Your task to perform on an android device: turn on wifi Image 0: 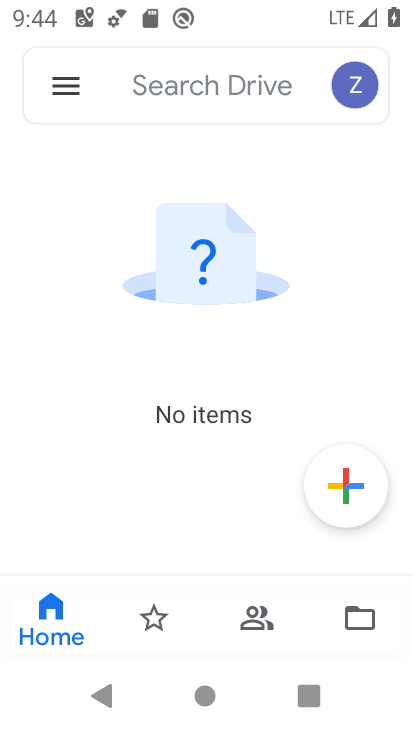
Step 0: press home button
Your task to perform on an android device: turn on wifi Image 1: 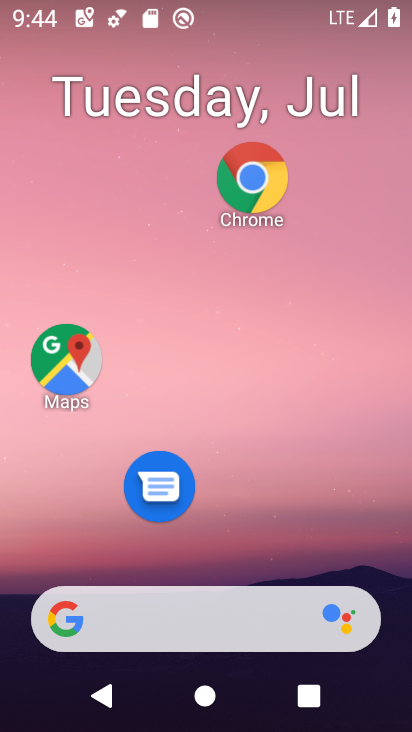
Step 1: drag from (215, 567) to (249, 61)
Your task to perform on an android device: turn on wifi Image 2: 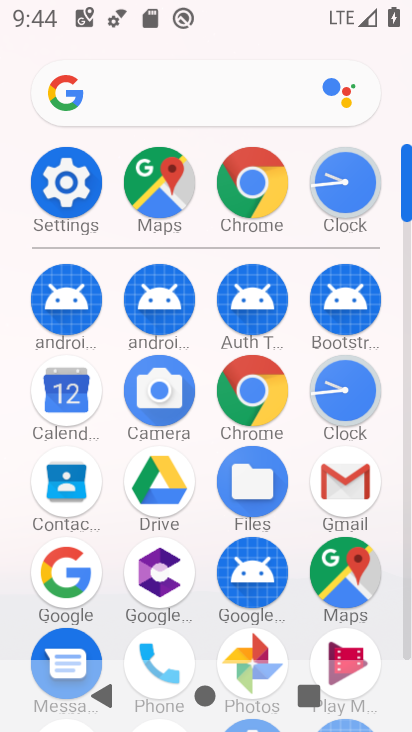
Step 2: drag from (229, 571) to (272, 243)
Your task to perform on an android device: turn on wifi Image 3: 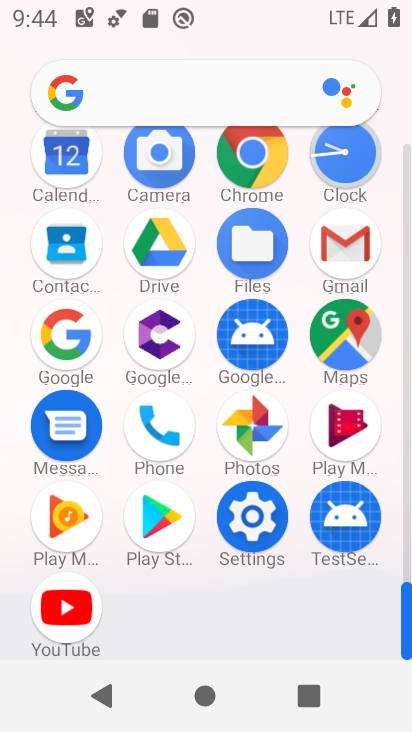
Step 3: click (254, 534)
Your task to perform on an android device: turn on wifi Image 4: 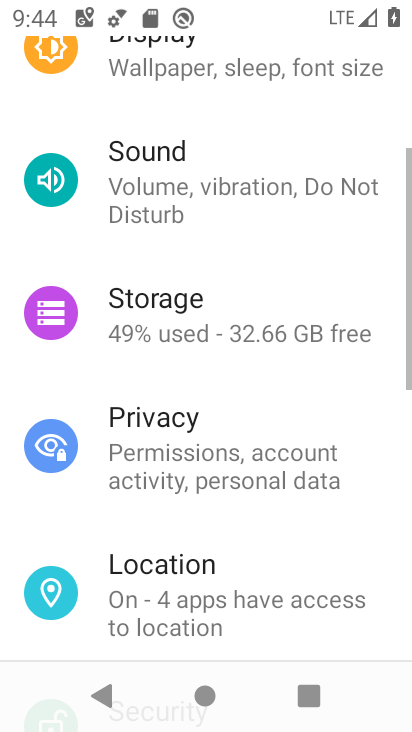
Step 4: drag from (247, 260) to (239, 608)
Your task to perform on an android device: turn on wifi Image 5: 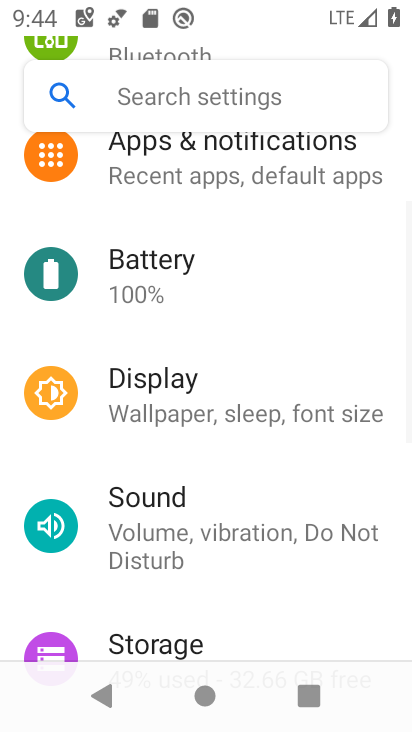
Step 5: drag from (259, 326) to (225, 635)
Your task to perform on an android device: turn on wifi Image 6: 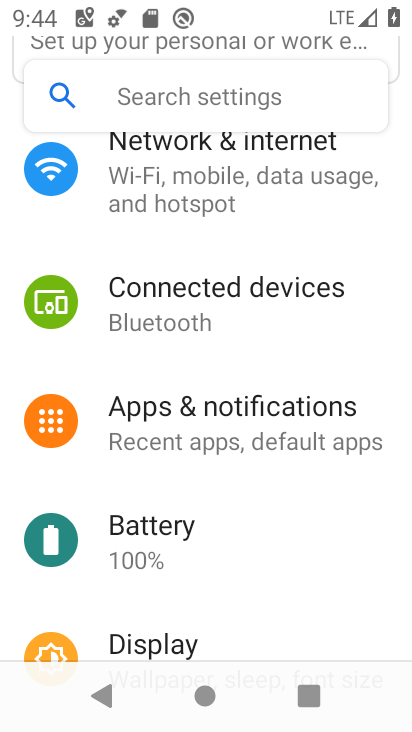
Step 6: drag from (260, 321) to (243, 600)
Your task to perform on an android device: turn on wifi Image 7: 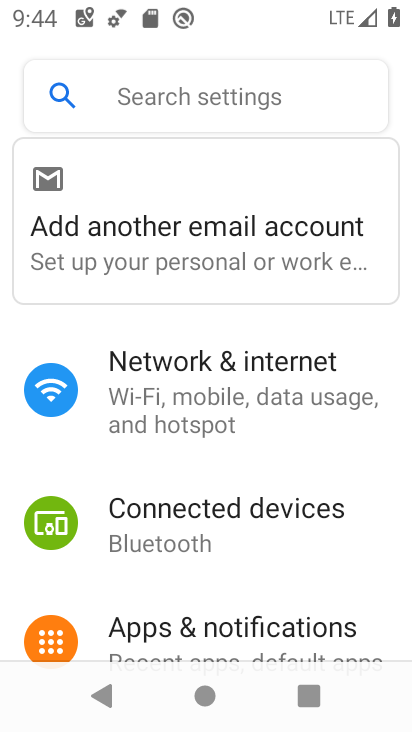
Step 7: click (243, 397)
Your task to perform on an android device: turn on wifi Image 8: 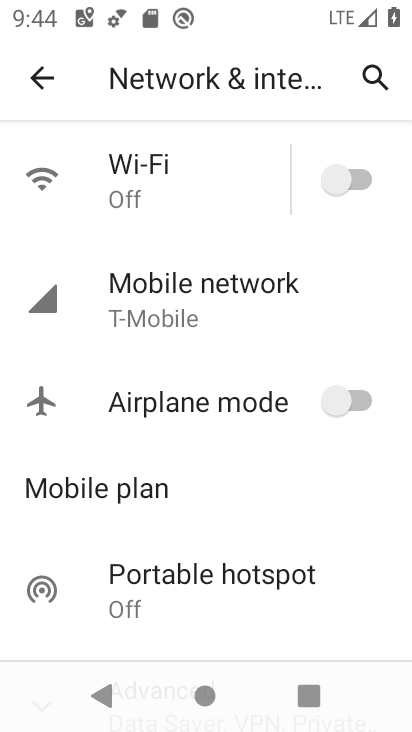
Step 8: click (361, 189)
Your task to perform on an android device: turn on wifi Image 9: 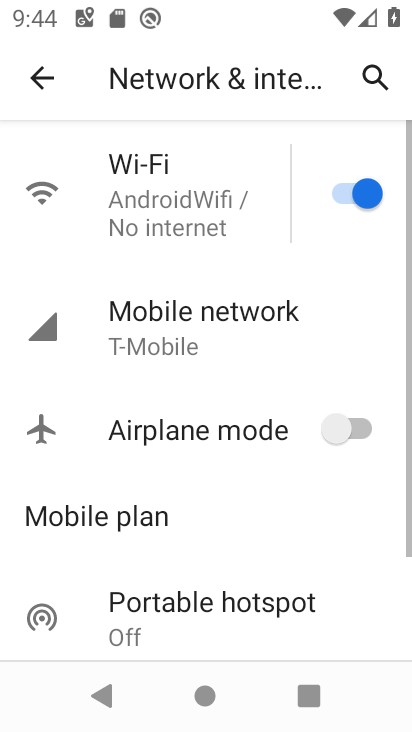
Step 9: task complete